Your task to perform on an android device: Go to ESPN.com Image 0: 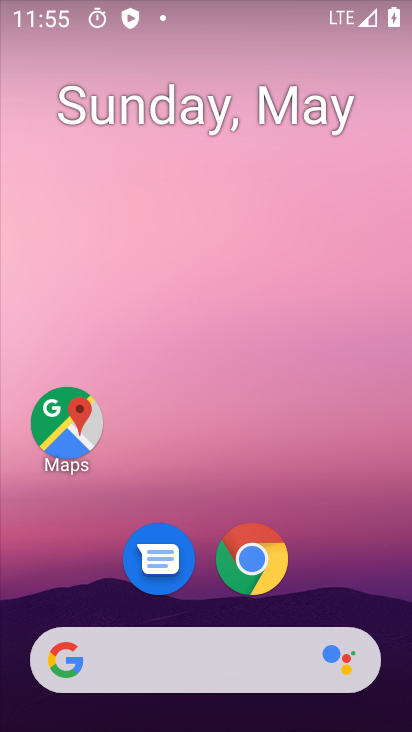
Step 0: drag from (291, 647) to (345, 0)
Your task to perform on an android device: Go to ESPN.com Image 1: 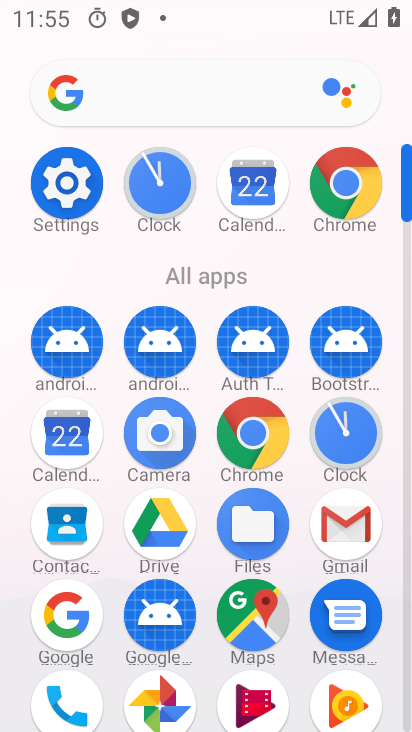
Step 1: click (269, 445)
Your task to perform on an android device: Go to ESPN.com Image 2: 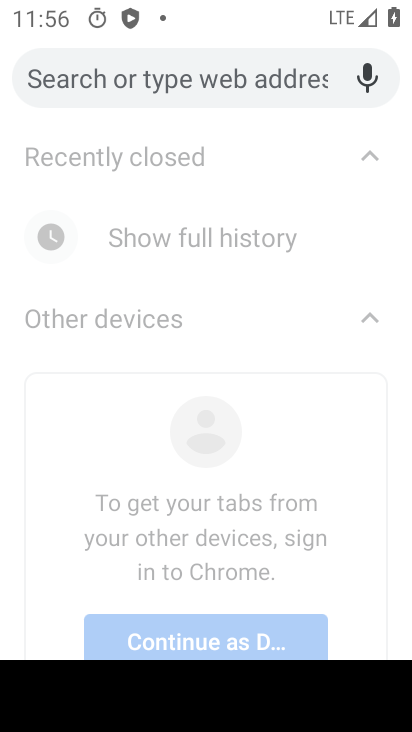
Step 2: type "espn.com"
Your task to perform on an android device: Go to ESPN.com Image 3: 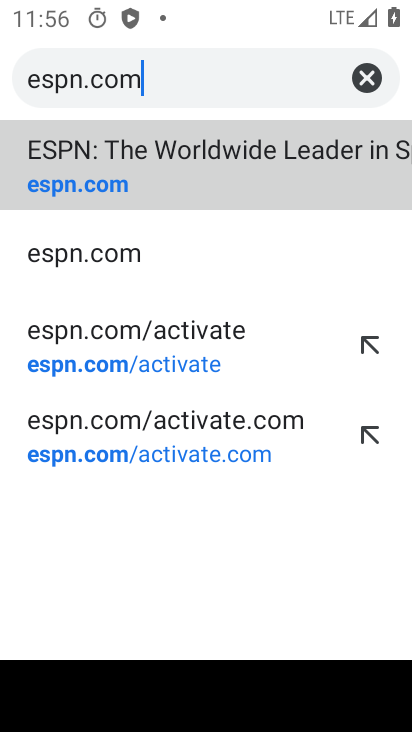
Step 3: click (159, 193)
Your task to perform on an android device: Go to ESPN.com Image 4: 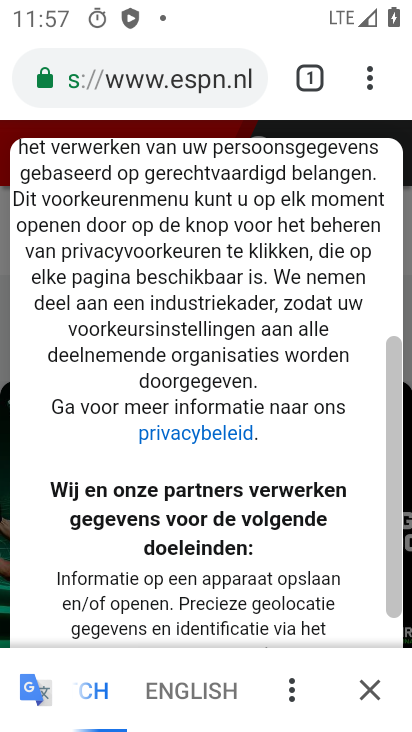
Step 4: task complete